Your task to perform on an android device: toggle data saver in the chrome app Image 0: 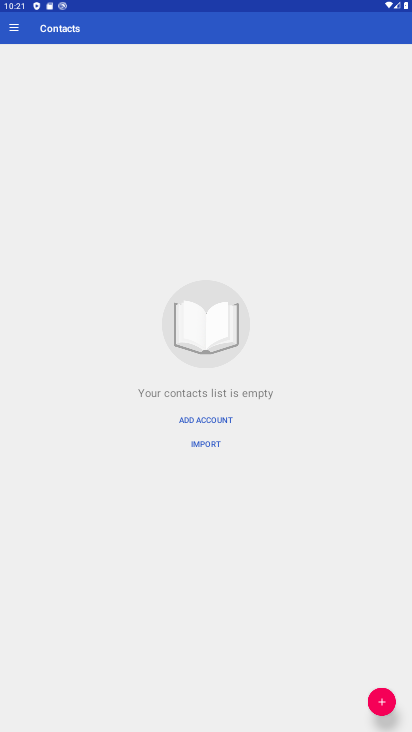
Step 0: press back button
Your task to perform on an android device: toggle data saver in the chrome app Image 1: 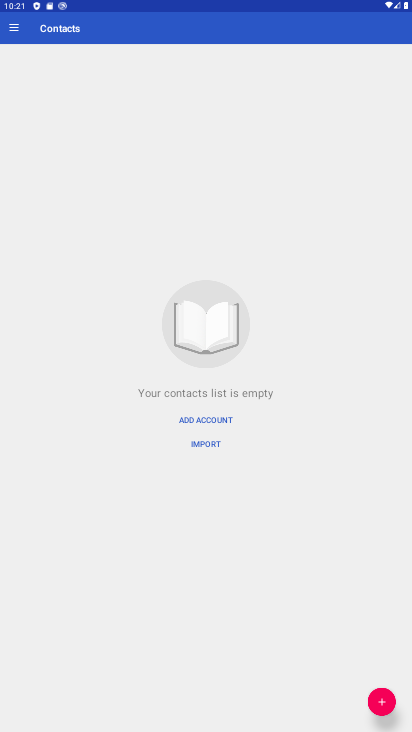
Step 1: press back button
Your task to perform on an android device: toggle data saver in the chrome app Image 2: 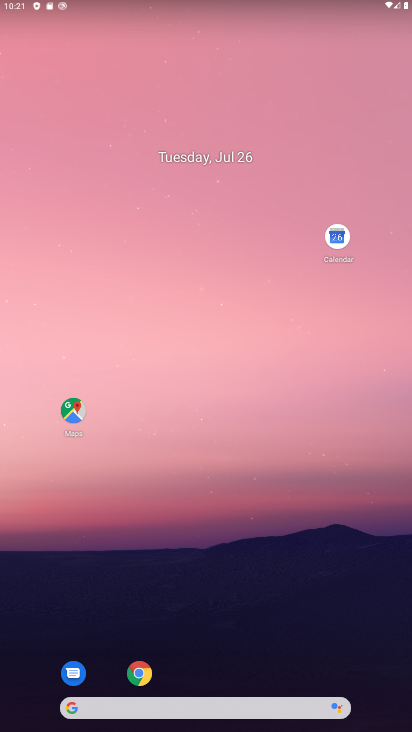
Step 2: click (144, 11)
Your task to perform on an android device: toggle data saver in the chrome app Image 3: 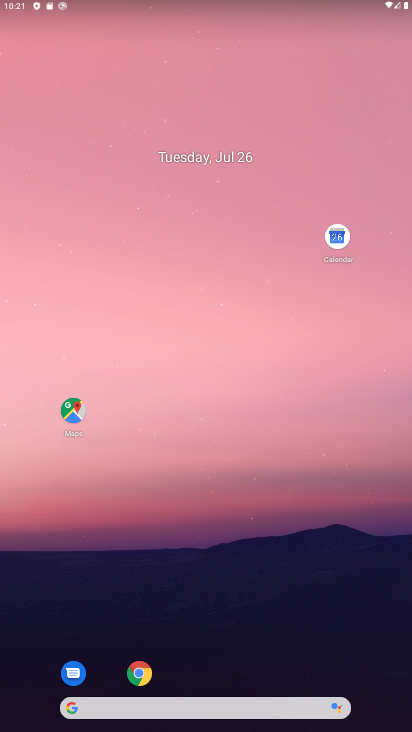
Step 3: drag from (246, 354) to (236, 2)
Your task to perform on an android device: toggle data saver in the chrome app Image 4: 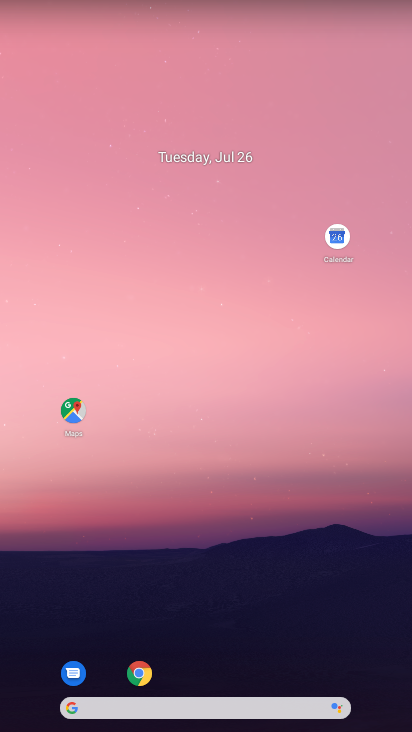
Step 4: drag from (244, 277) to (236, 84)
Your task to perform on an android device: toggle data saver in the chrome app Image 5: 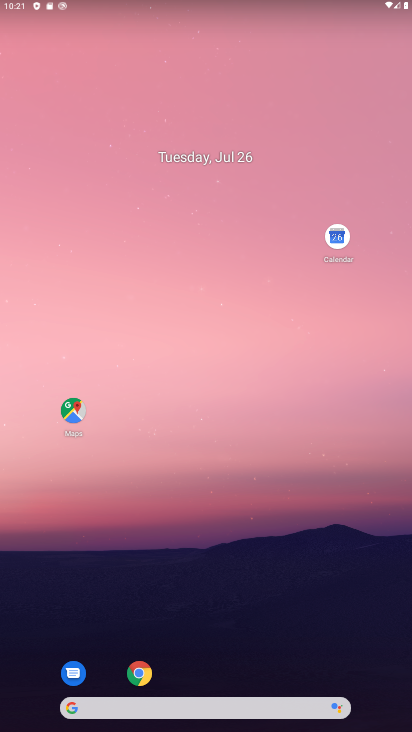
Step 5: drag from (223, 480) to (179, 13)
Your task to perform on an android device: toggle data saver in the chrome app Image 6: 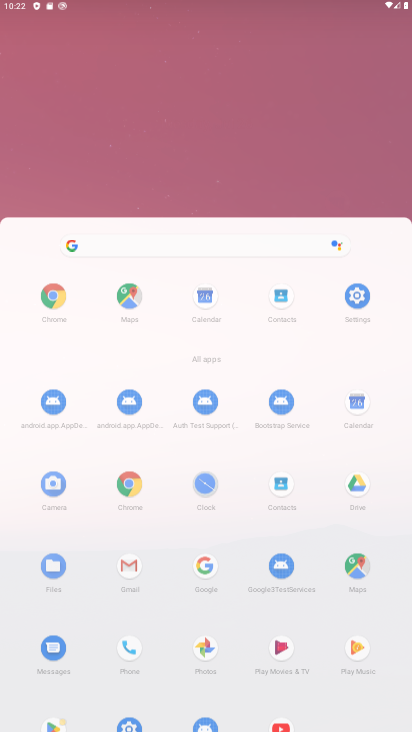
Step 6: drag from (231, 536) to (192, 114)
Your task to perform on an android device: toggle data saver in the chrome app Image 7: 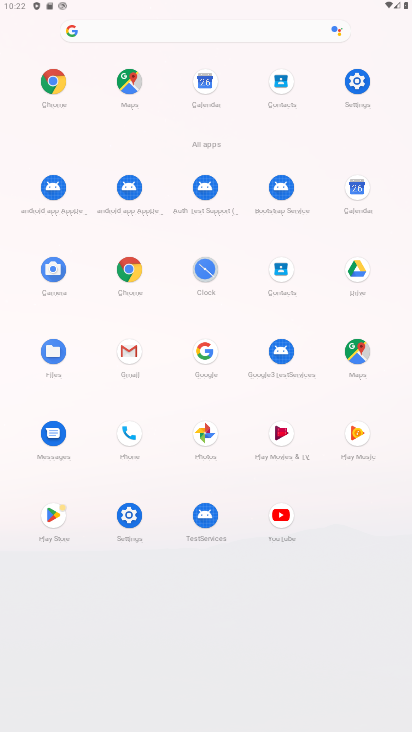
Step 7: click (127, 280)
Your task to perform on an android device: toggle data saver in the chrome app Image 8: 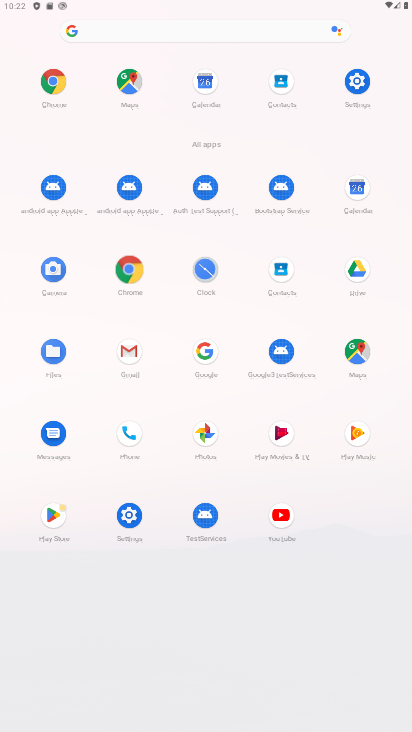
Step 8: click (126, 279)
Your task to perform on an android device: toggle data saver in the chrome app Image 9: 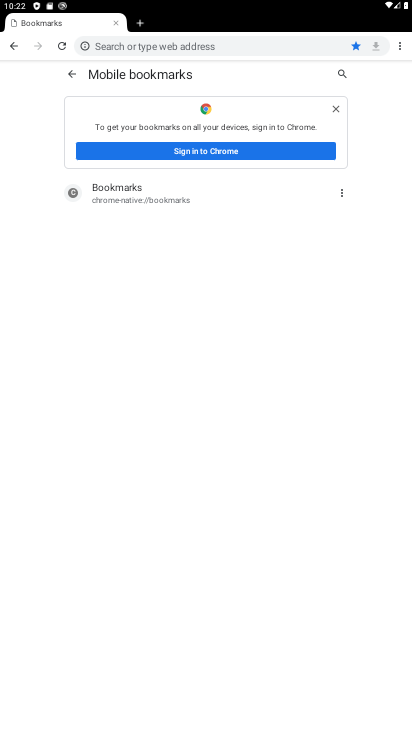
Step 9: click (16, 47)
Your task to perform on an android device: toggle data saver in the chrome app Image 10: 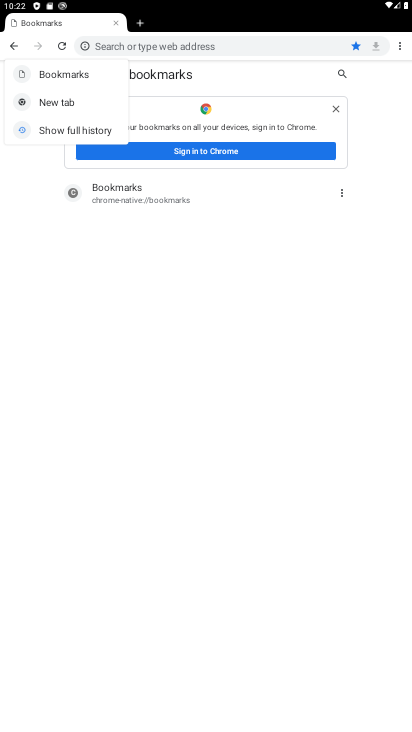
Step 10: click (111, 343)
Your task to perform on an android device: toggle data saver in the chrome app Image 11: 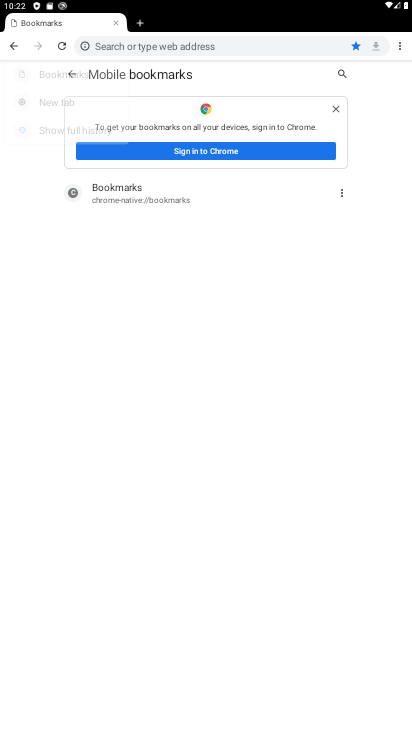
Step 11: click (111, 343)
Your task to perform on an android device: toggle data saver in the chrome app Image 12: 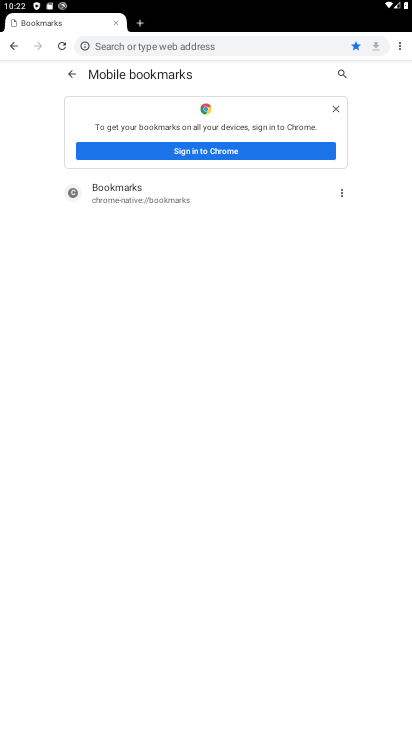
Step 12: click (111, 348)
Your task to perform on an android device: toggle data saver in the chrome app Image 13: 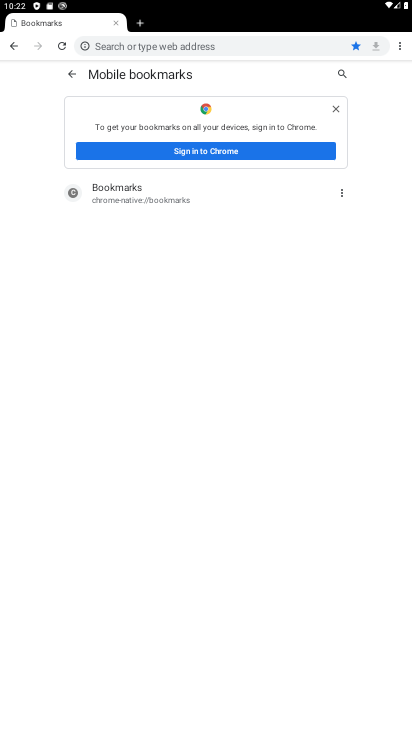
Step 13: click (13, 50)
Your task to perform on an android device: toggle data saver in the chrome app Image 14: 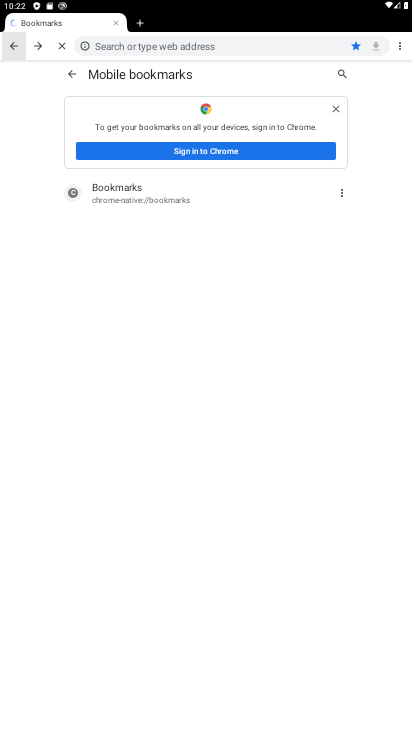
Step 14: click (13, 52)
Your task to perform on an android device: toggle data saver in the chrome app Image 15: 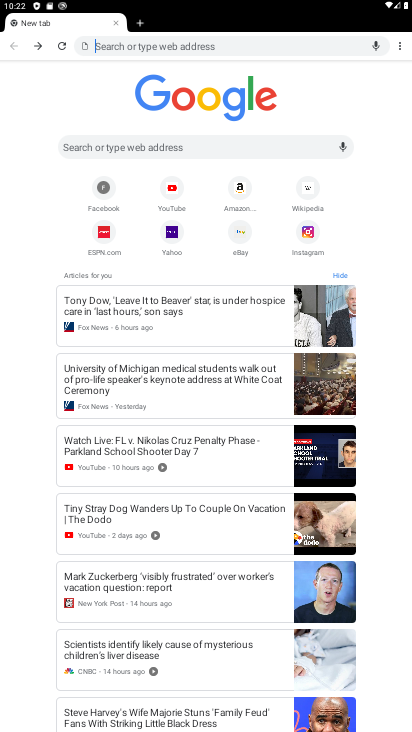
Step 15: click (391, 43)
Your task to perform on an android device: toggle data saver in the chrome app Image 16: 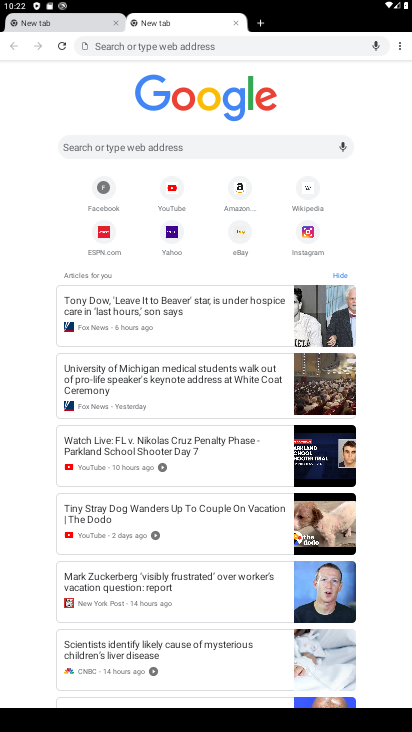
Step 16: click (393, 44)
Your task to perform on an android device: toggle data saver in the chrome app Image 17: 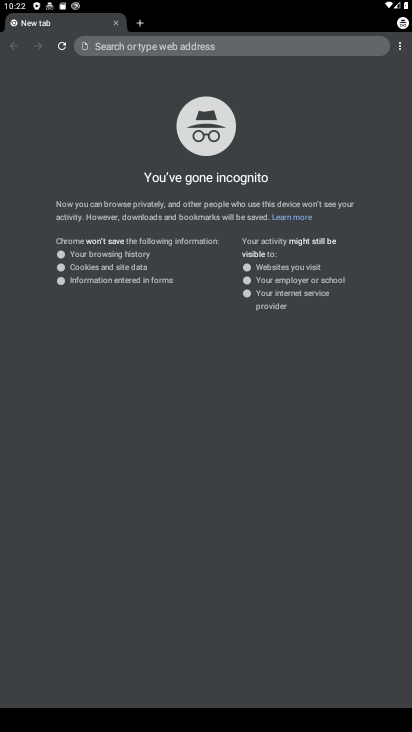
Step 17: click (391, 48)
Your task to perform on an android device: toggle data saver in the chrome app Image 18: 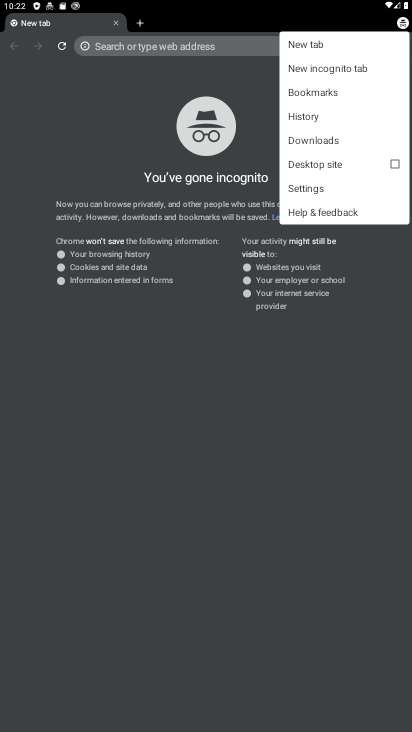
Step 18: click (322, 187)
Your task to perform on an android device: toggle data saver in the chrome app Image 19: 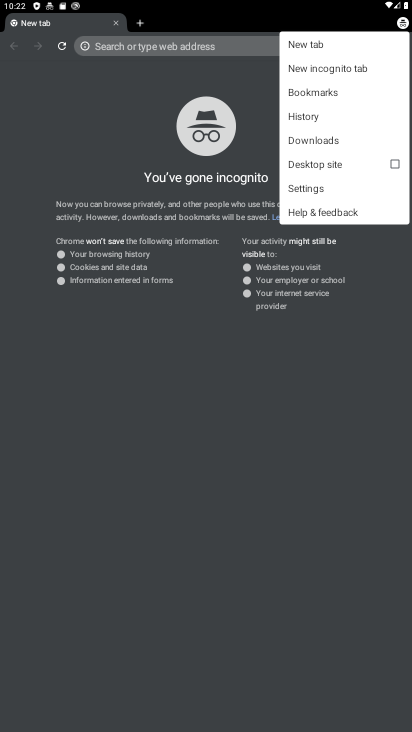
Step 19: click (319, 194)
Your task to perform on an android device: toggle data saver in the chrome app Image 20: 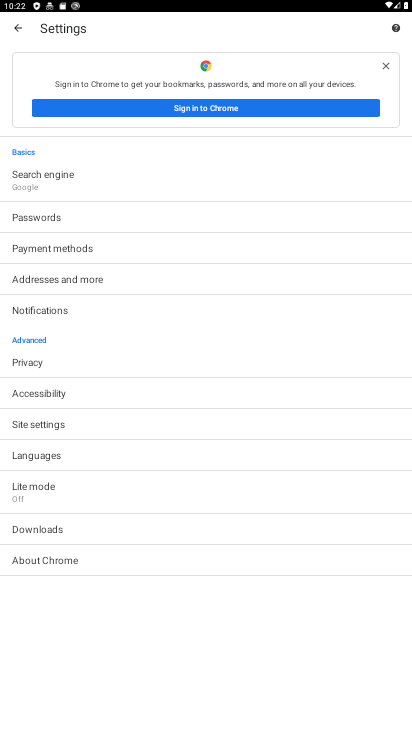
Step 20: click (39, 488)
Your task to perform on an android device: toggle data saver in the chrome app Image 21: 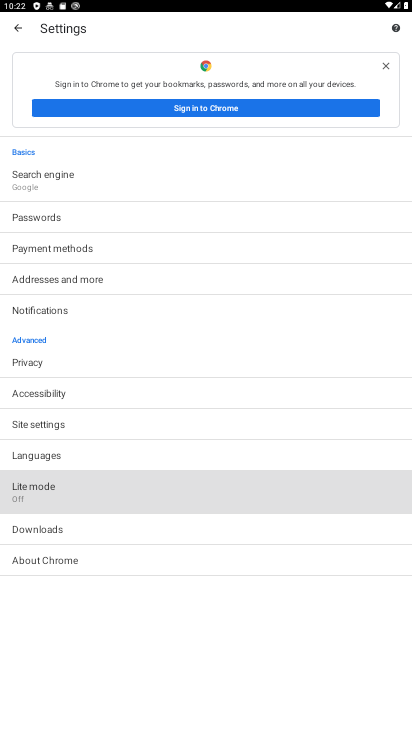
Step 21: click (39, 488)
Your task to perform on an android device: toggle data saver in the chrome app Image 22: 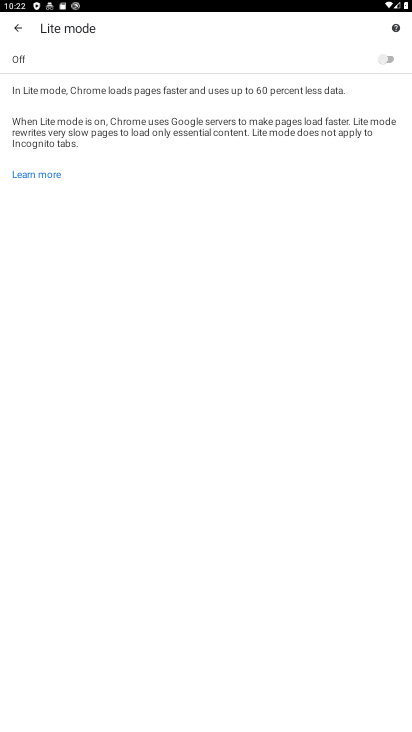
Step 22: click (39, 488)
Your task to perform on an android device: toggle data saver in the chrome app Image 23: 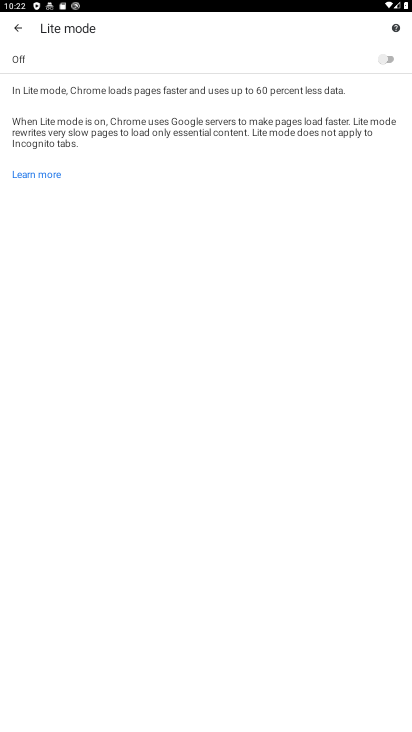
Step 23: click (378, 56)
Your task to perform on an android device: toggle data saver in the chrome app Image 24: 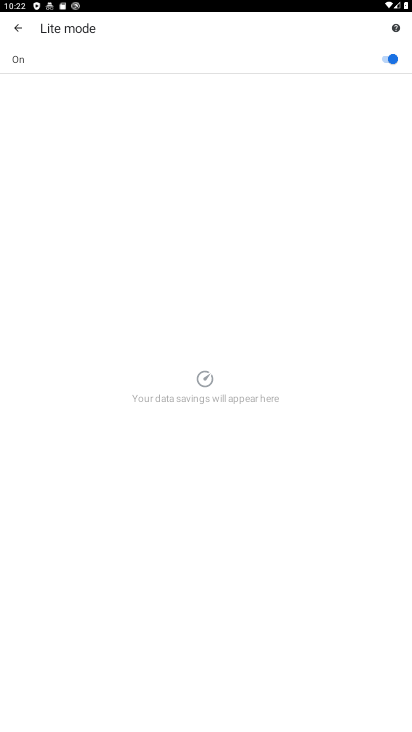
Step 24: task complete